Your task to perform on an android device: Empty the shopping cart on ebay.com. Add macbook air to the cart on ebay.com, then select checkout. Image 0: 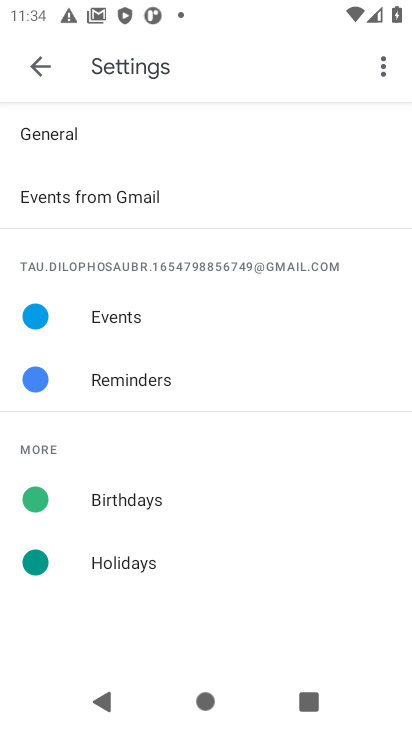
Step 0: press home button
Your task to perform on an android device: Empty the shopping cart on ebay.com. Add macbook air to the cart on ebay.com, then select checkout. Image 1: 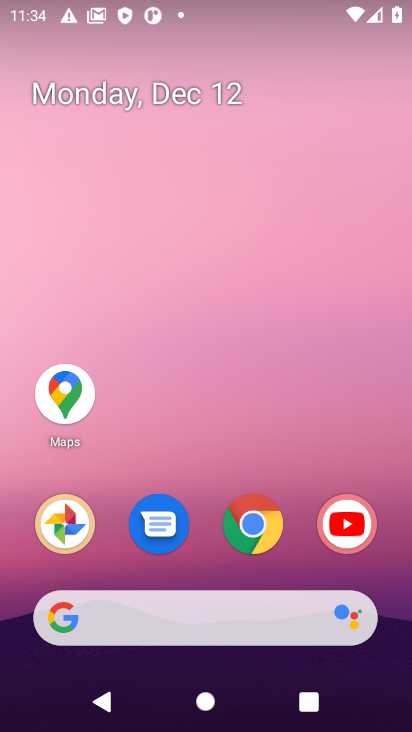
Step 1: click (250, 520)
Your task to perform on an android device: Empty the shopping cart on ebay.com. Add macbook air to the cart on ebay.com, then select checkout. Image 2: 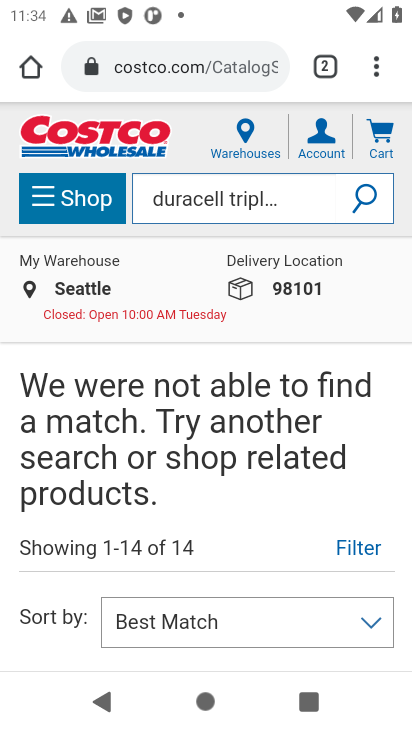
Step 2: click (177, 68)
Your task to perform on an android device: Empty the shopping cart on ebay.com. Add macbook air to the cart on ebay.com, then select checkout. Image 3: 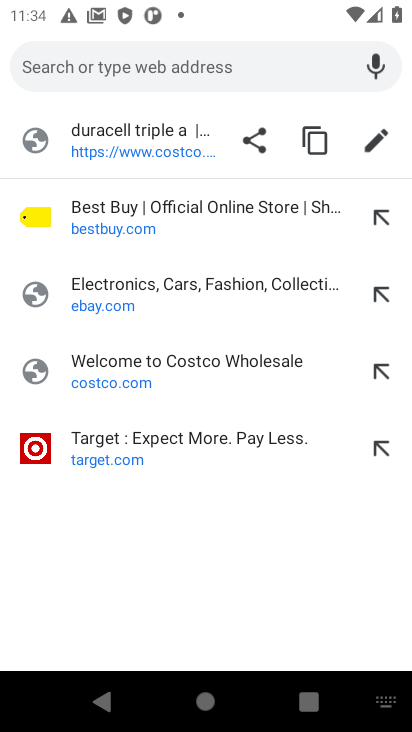
Step 3: click (109, 297)
Your task to perform on an android device: Empty the shopping cart on ebay.com. Add macbook air to the cart on ebay.com, then select checkout. Image 4: 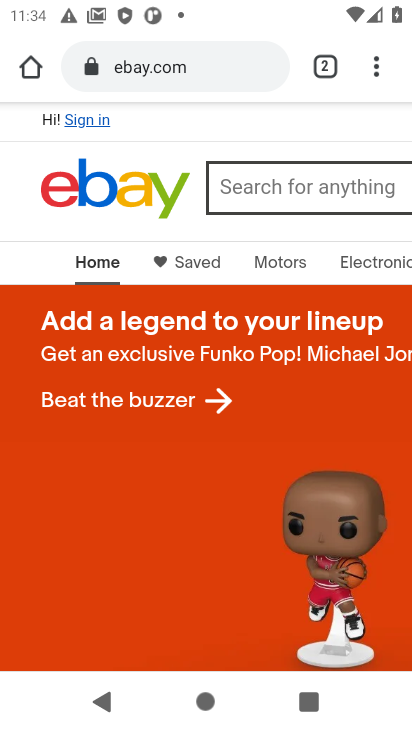
Step 4: drag from (289, 143) to (54, 125)
Your task to perform on an android device: Empty the shopping cart on ebay.com. Add macbook air to the cart on ebay.com, then select checkout. Image 5: 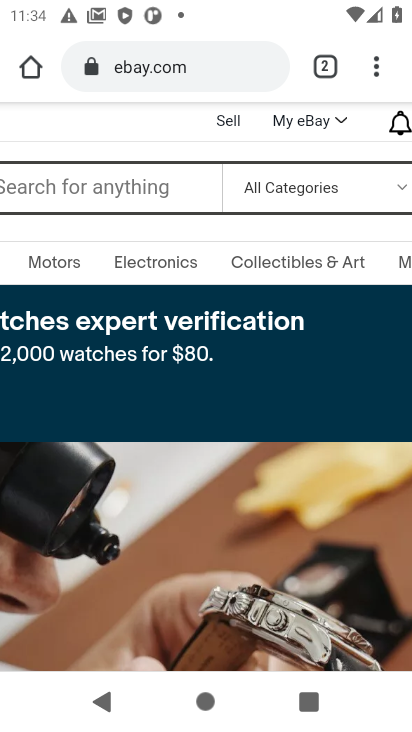
Step 5: drag from (177, 153) to (17, 160)
Your task to perform on an android device: Empty the shopping cart on ebay.com. Add macbook air to the cart on ebay.com, then select checkout. Image 6: 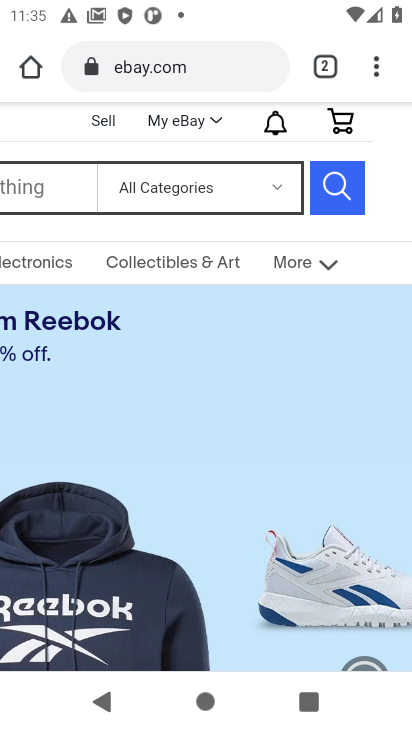
Step 6: click (339, 118)
Your task to perform on an android device: Empty the shopping cart on ebay.com. Add macbook air to the cart on ebay.com, then select checkout. Image 7: 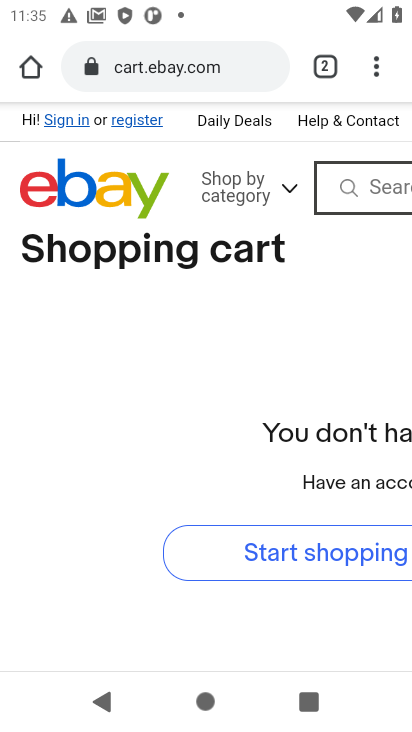
Step 7: click (357, 183)
Your task to perform on an android device: Empty the shopping cart on ebay.com. Add macbook air to the cart on ebay.com, then select checkout. Image 8: 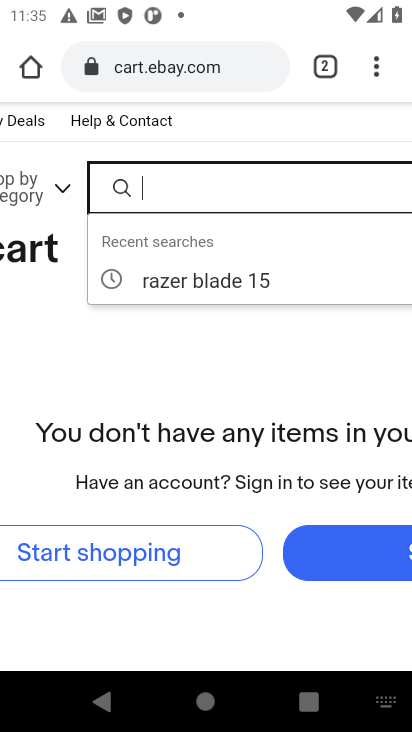
Step 8: type "macbook air"
Your task to perform on an android device: Empty the shopping cart on ebay.com. Add macbook air to the cart on ebay.com, then select checkout. Image 9: 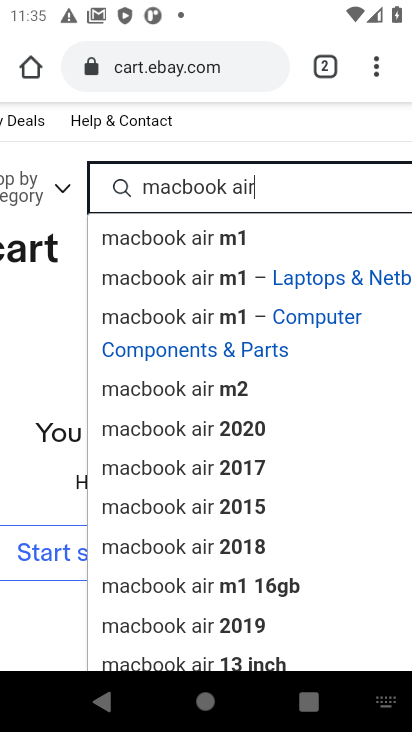
Step 9: drag from (387, 209) to (41, 208)
Your task to perform on an android device: Empty the shopping cart on ebay.com. Add macbook air to the cart on ebay.com, then select checkout. Image 10: 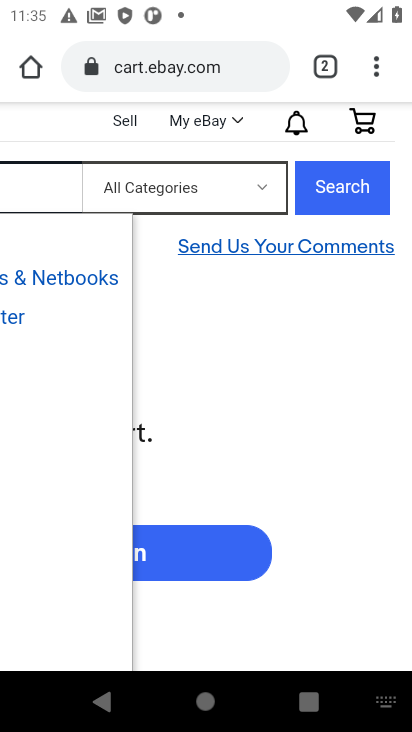
Step 10: click (350, 190)
Your task to perform on an android device: Empty the shopping cart on ebay.com. Add macbook air to the cart on ebay.com, then select checkout. Image 11: 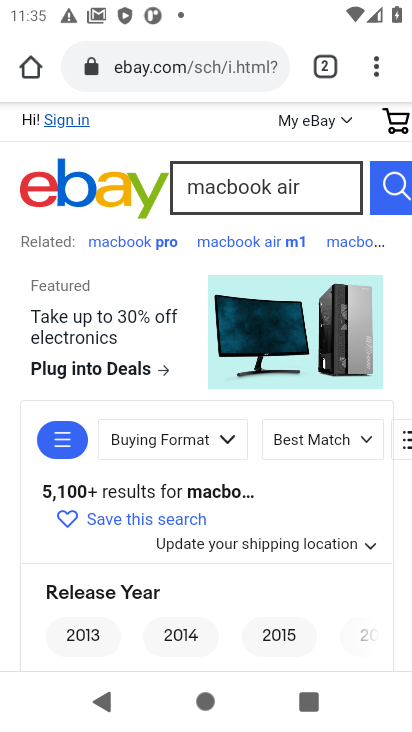
Step 11: drag from (264, 492) to (236, 188)
Your task to perform on an android device: Empty the shopping cart on ebay.com. Add macbook air to the cart on ebay.com, then select checkout. Image 12: 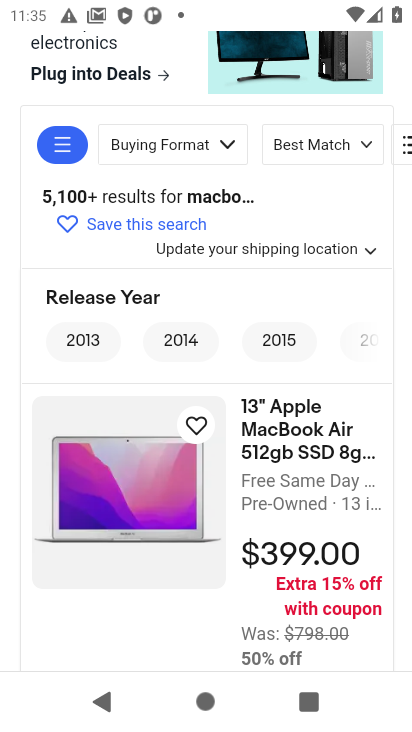
Step 12: drag from (220, 486) to (232, 194)
Your task to perform on an android device: Empty the shopping cart on ebay.com. Add macbook air to the cart on ebay.com, then select checkout. Image 13: 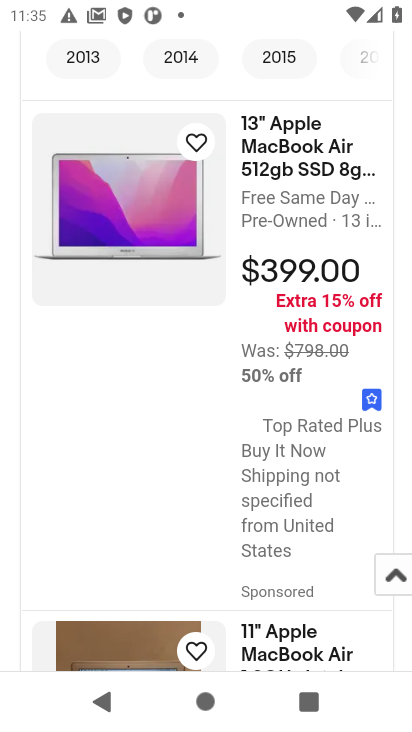
Step 13: click (301, 193)
Your task to perform on an android device: Empty the shopping cart on ebay.com. Add macbook air to the cart on ebay.com, then select checkout. Image 14: 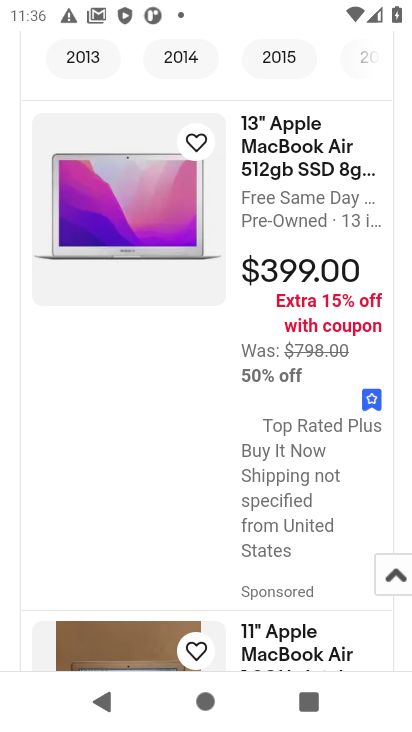
Step 14: click (295, 174)
Your task to perform on an android device: Empty the shopping cart on ebay.com. Add macbook air to the cart on ebay.com, then select checkout. Image 15: 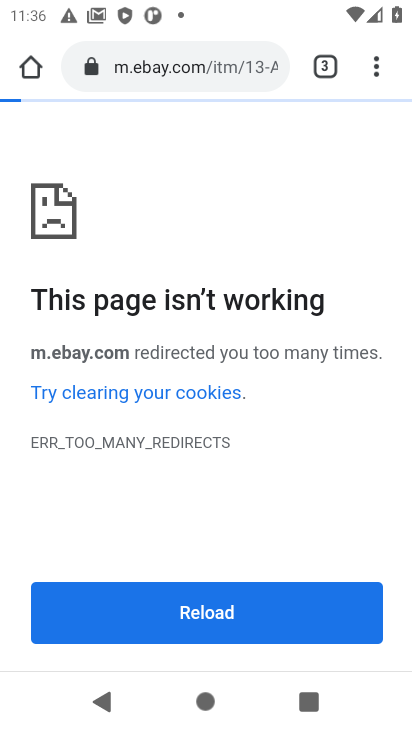
Step 15: task complete